Your task to perform on an android device: empty trash in the gmail app Image 0: 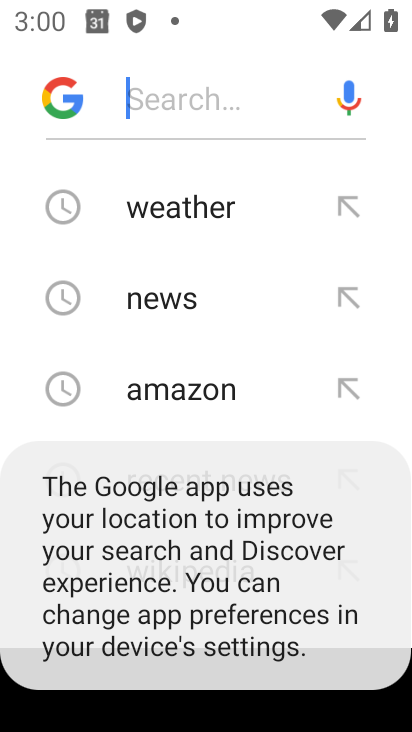
Step 0: press back button
Your task to perform on an android device: empty trash in the gmail app Image 1: 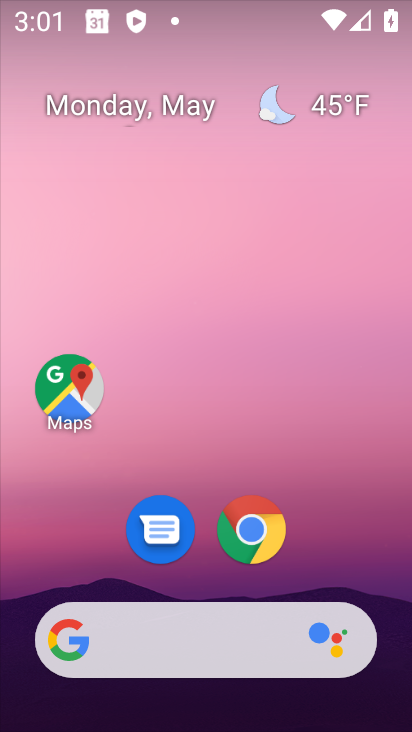
Step 1: drag from (378, 513) to (320, 163)
Your task to perform on an android device: empty trash in the gmail app Image 2: 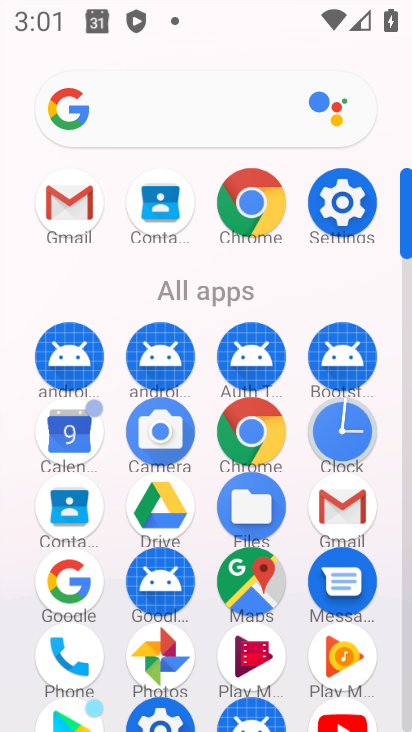
Step 2: click (64, 197)
Your task to perform on an android device: empty trash in the gmail app Image 3: 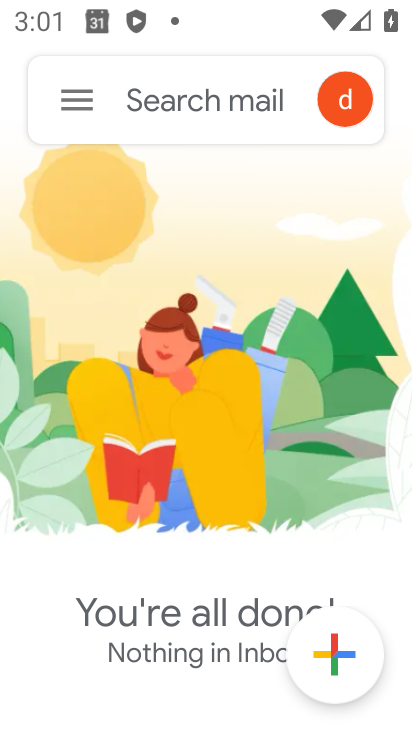
Step 3: click (77, 105)
Your task to perform on an android device: empty trash in the gmail app Image 4: 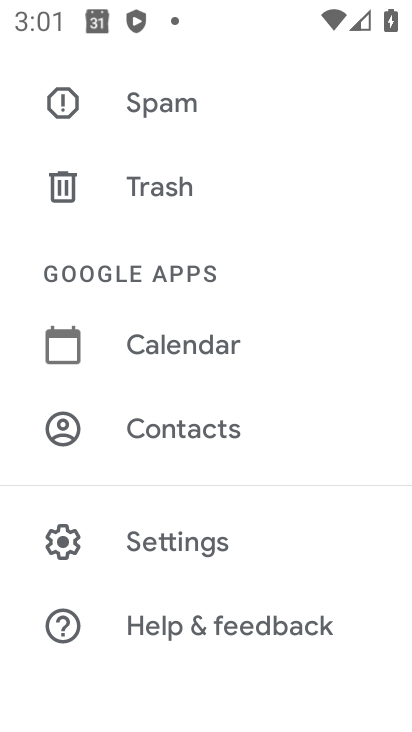
Step 4: click (163, 204)
Your task to perform on an android device: empty trash in the gmail app Image 5: 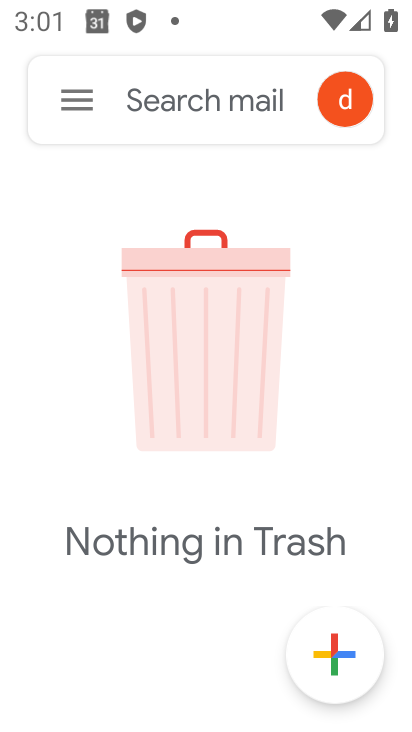
Step 5: task complete